Your task to perform on an android device: Go to Maps Image 0: 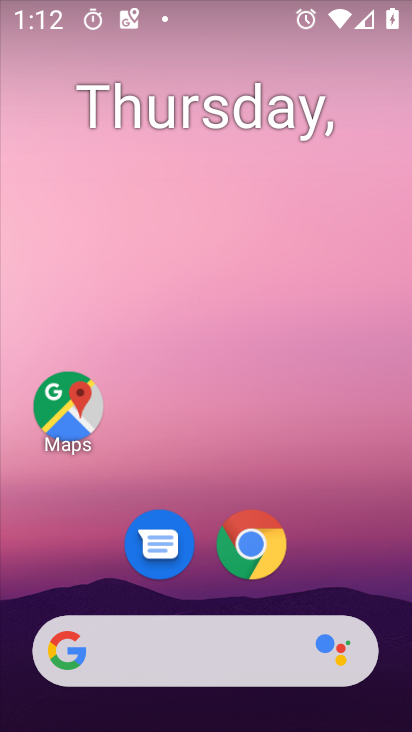
Step 0: click (274, 107)
Your task to perform on an android device: Go to Maps Image 1: 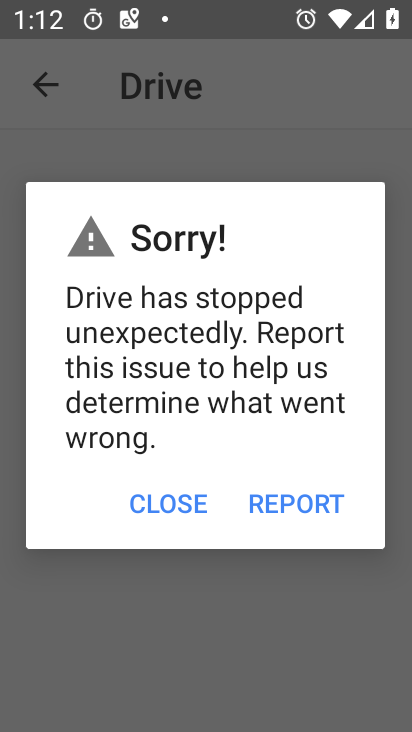
Step 1: press home button
Your task to perform on an android device: Go to Maps Image 2: 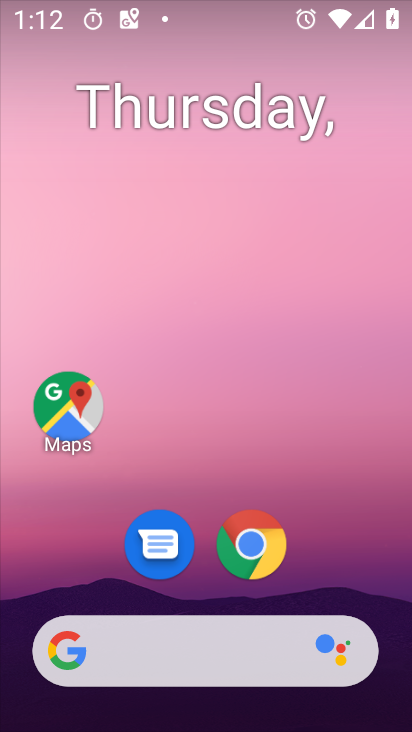
Step 2: click (58, 403)
Your task to perform on an android device: Go to Maps Image 3: 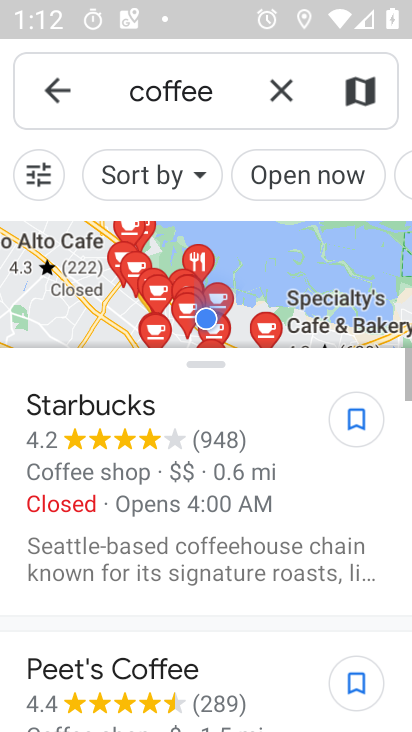
Step 3: task complete